Your task to perform on an android device: open chrome privacy settings Image 0: 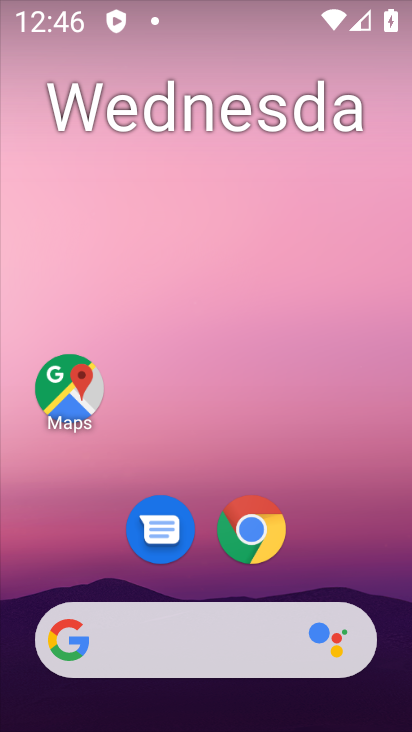
Step 0: drag from (215, 720) to (213, 189)
Your task to perform on an android device: open chrome privacy settings Image 1: 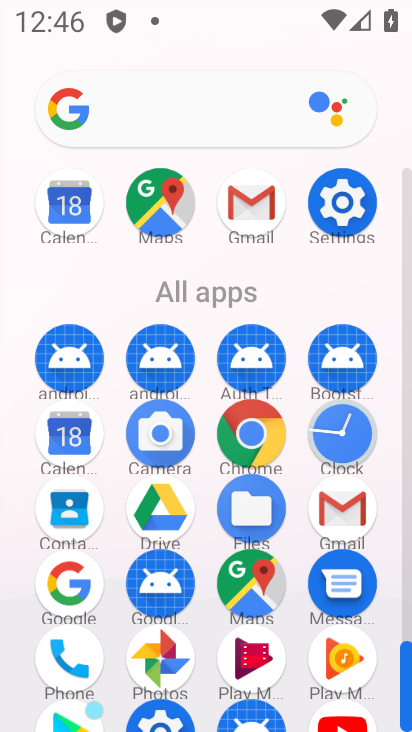
Step 1: click (251, 431)
Your task to perform on an android device: open chrome privacy settings Image 2: 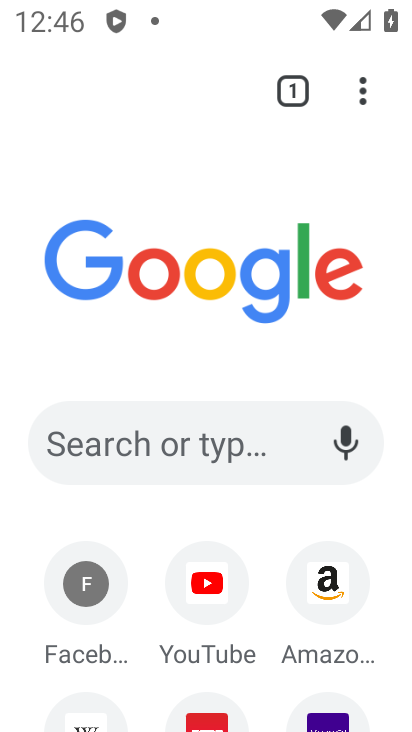
Step 2: click (364, 102)
Your task to perform on an android device: open chrome privacy settings Image 3: 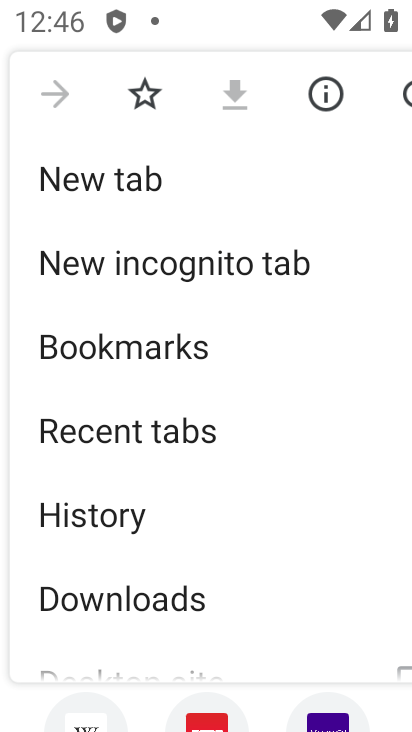
Step 3: drag from (158, 619) to (163, 292)
Your task to perform on an android device: open chrome privacy settings Image 4: 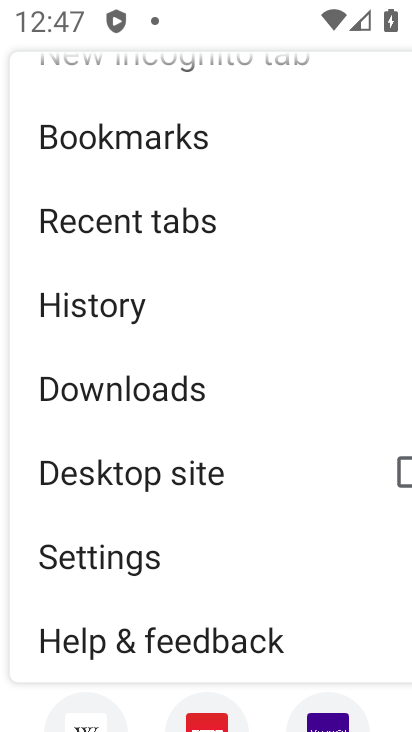
Step 4: click (124, 557)
Your task to perform on an android device: open chrome privacy settings Image 5: 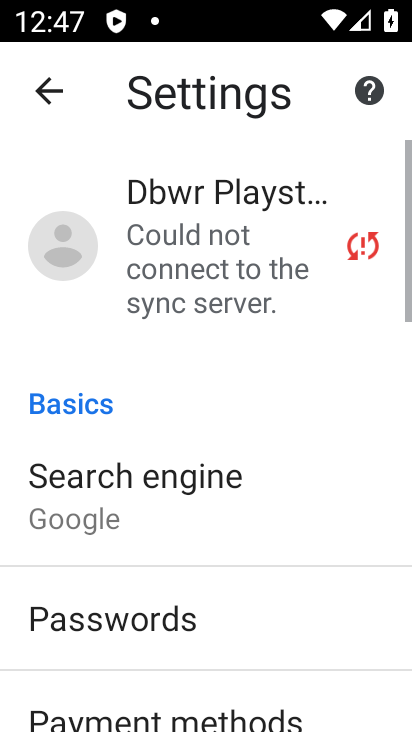
Step 5: drag from (169, 683) to (166, 290)
Your task to perform on an android device: open chrome privacy settings Image 6: 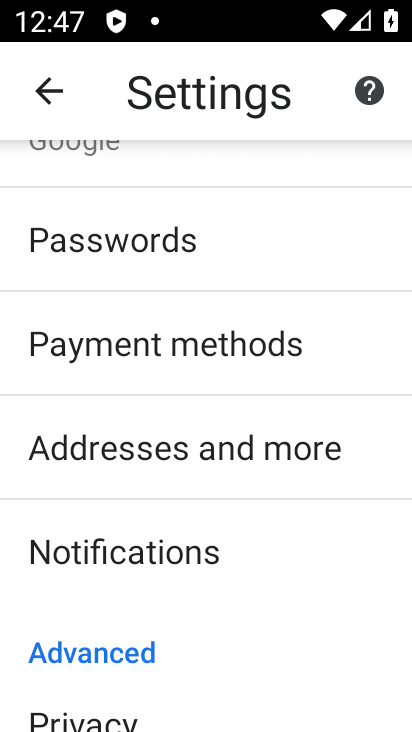
Step 6: drag from (166, 692) to (173, 429)
Your task to perform on an android device: open chrome privacy settings Image 7: 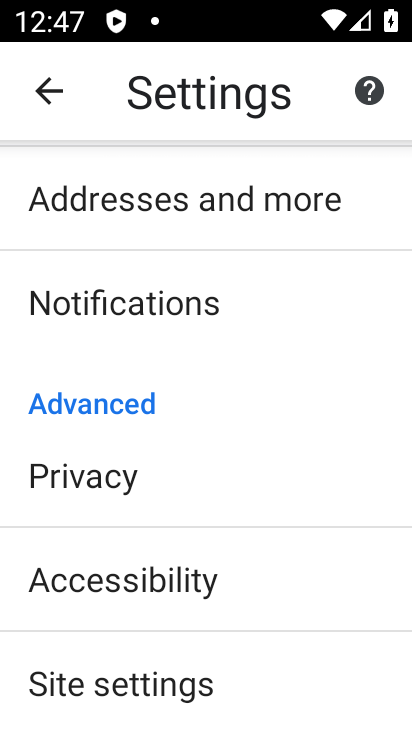
Step 7: click (101, 473)
Your task to perform on an android device: open chrome privacy settings Image 8: 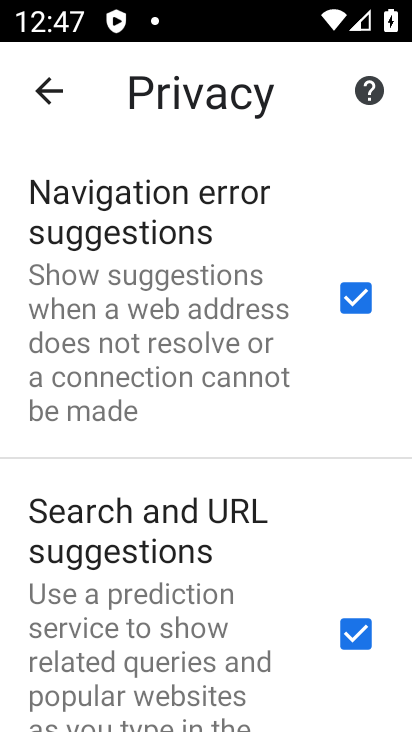
Step 8: task complete